Your task to perform on an android device: delete the emails in spam in the gmail app Image 0: 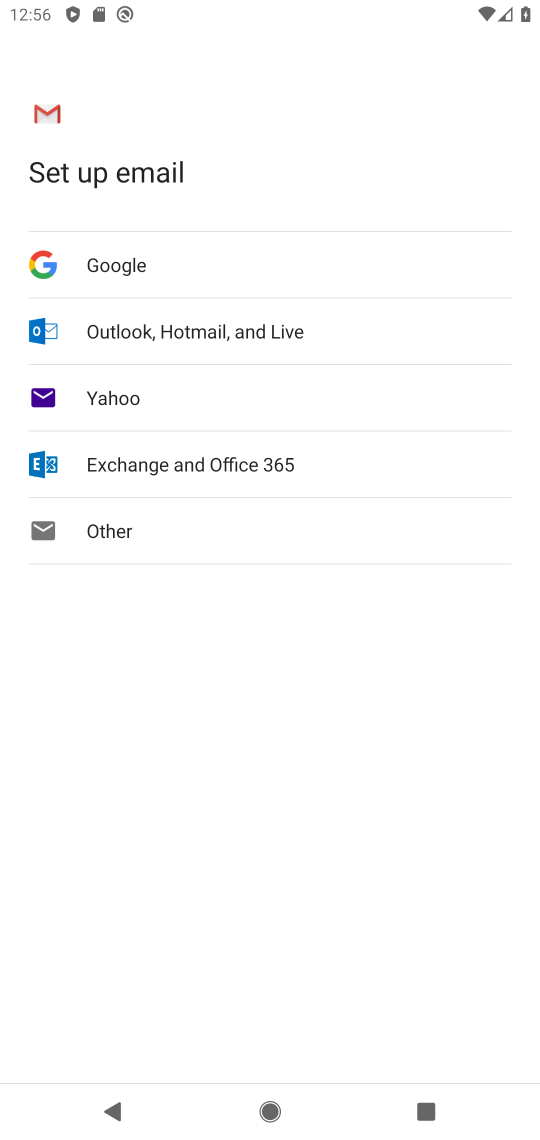
Step 0: press home button
Your task to perform on an android device: delete the emails in spam in the gmail app Image 1: 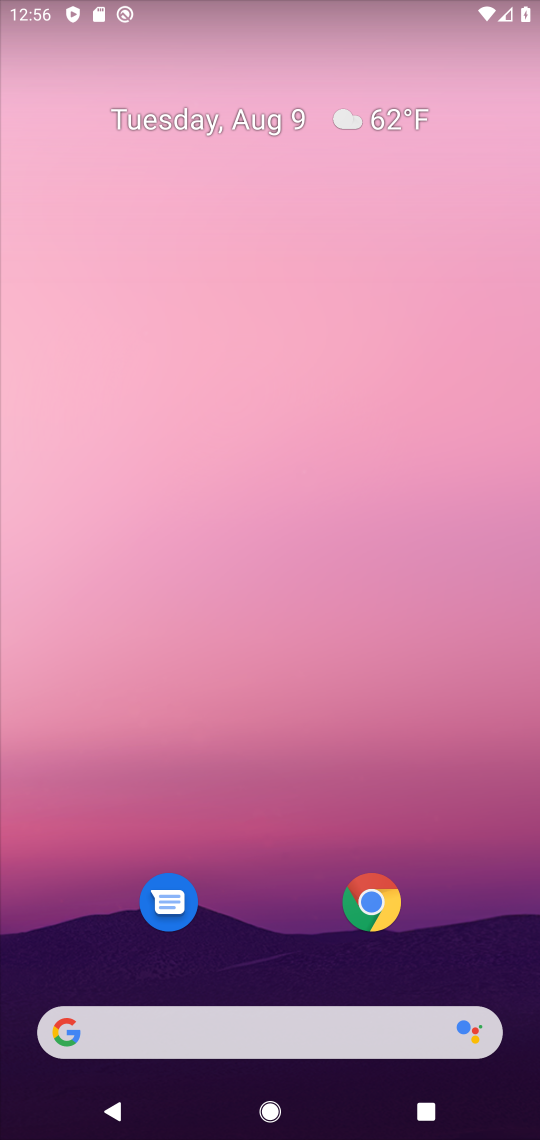
Step 1: drag from (246, 1021) to (112, 390)
Your task to perform on an android device: delete the emails in spam in the gmail app Image 2: 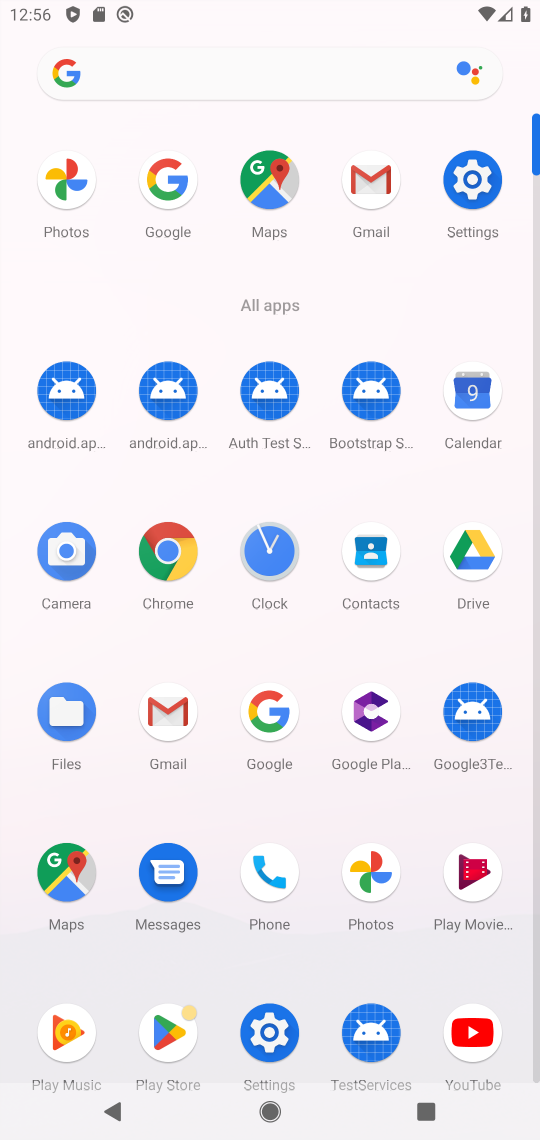
Step 2: click (168, 694)
Your task to perform on an android device: delete the emails in spam in the gmail app Image 3: 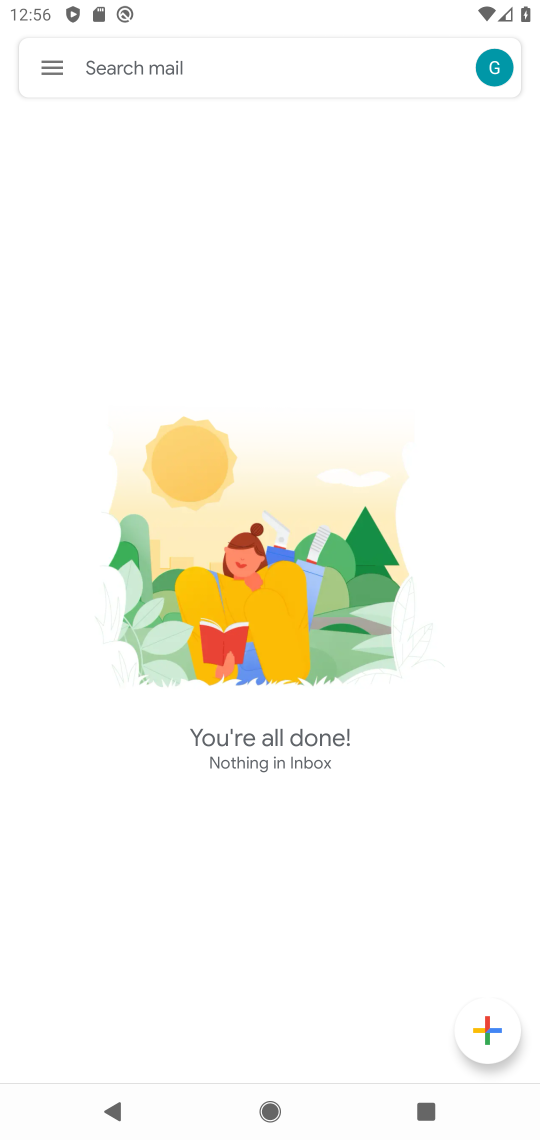
Step 3: click (57, 66)
Your task to perform on an android device: delete the emails in spam in the gmail app Image 4: 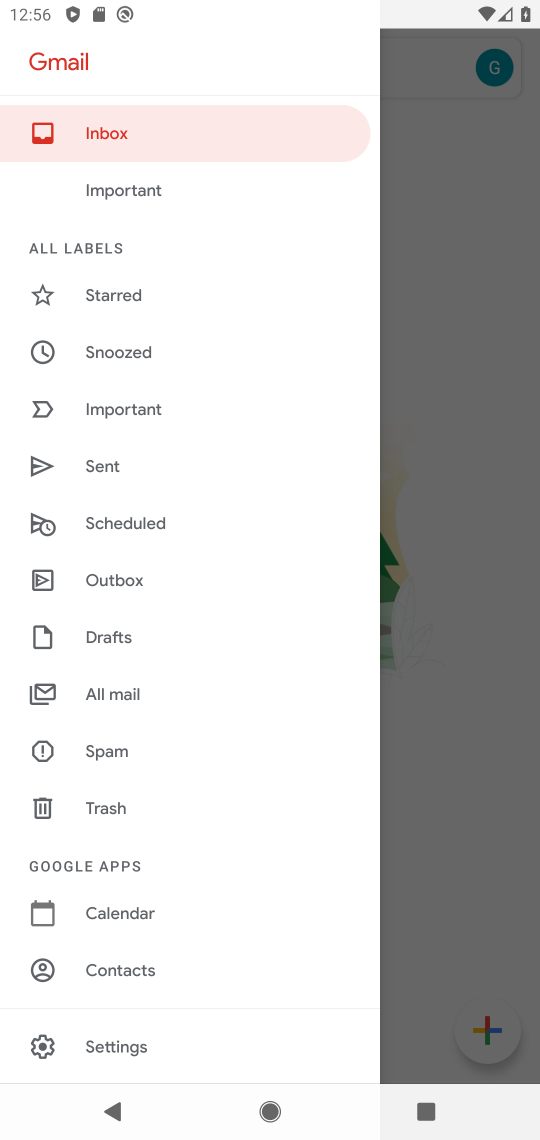
Step 4: click (113, 741)
Your task to perform on an android device: delete the emails in spam in the gmail app Image 5: 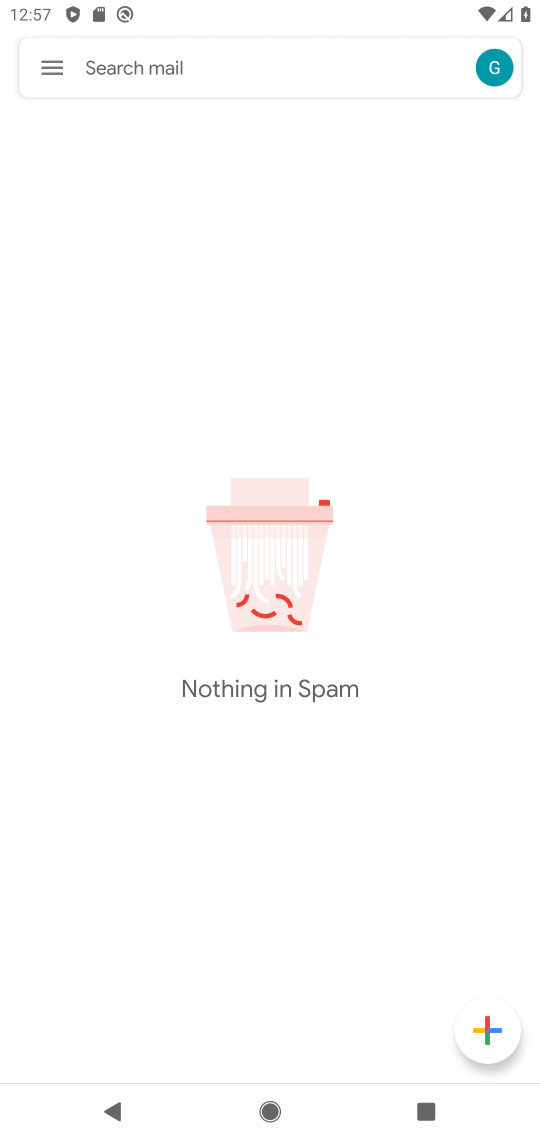
Step 5: task complete